Your task to perform on an android device: create a new album in the google photos Image 0: 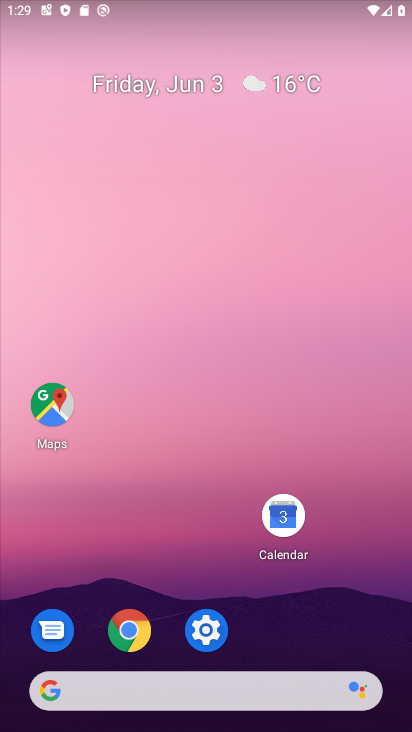
Step 0: drag from (297, 695) to (186, 134)
Your task to perform on an android device: create a new album in the google photos Image 1: 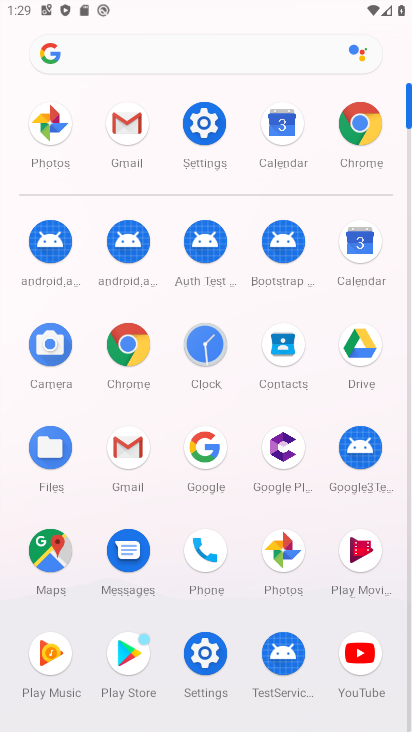
Step 1: click (283, 548)
Your task to perform on an android device: create a new album in the google photos Image 2: 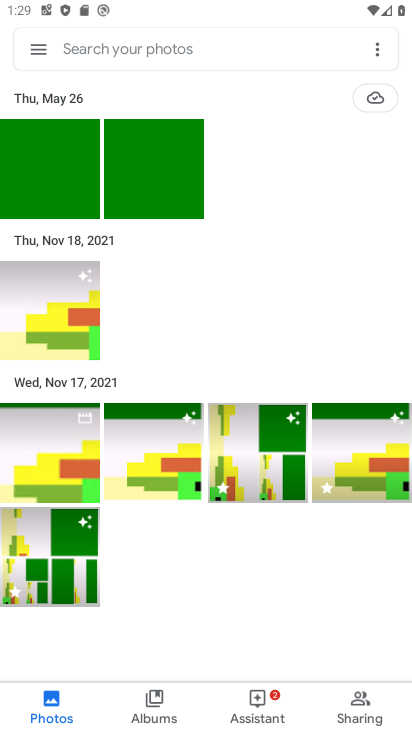
Step 2: click (74, 182)
Your task to perform on an android device: create a new album in the google photos Image 3: 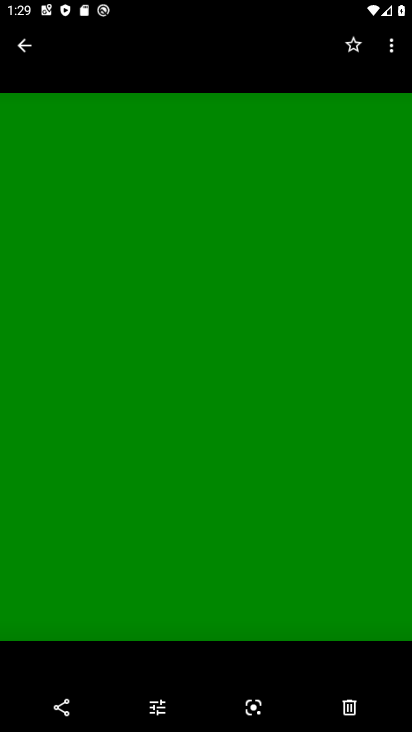
Step 3: click (389, 60)
Your task to perform on an android device: create a new album in the google photos Image 4: 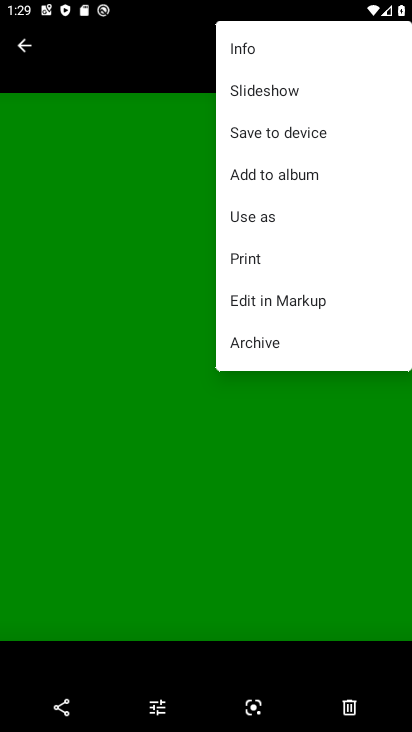
Step 4: click (266, 180)
Your task to perform on an android device: create a new album in the google photos Image 5: 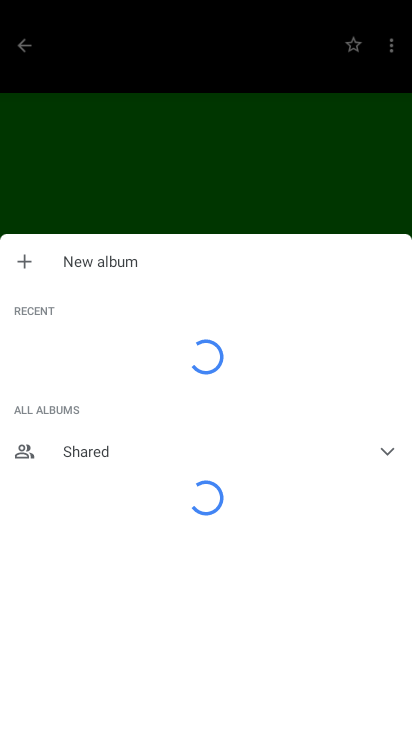
Step 5: click (39, 256)
Your task to perform on an android device: create a new album in the google photos Image 6: 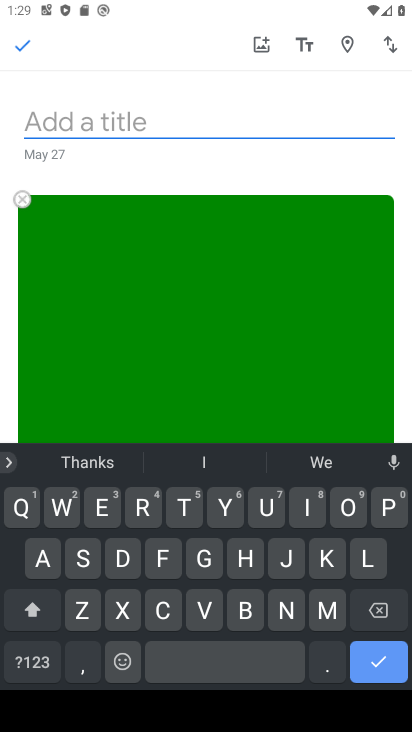
Step 6: click (155, 503)
Your task to perform on an android device: create a new album in the google photos Image 7: 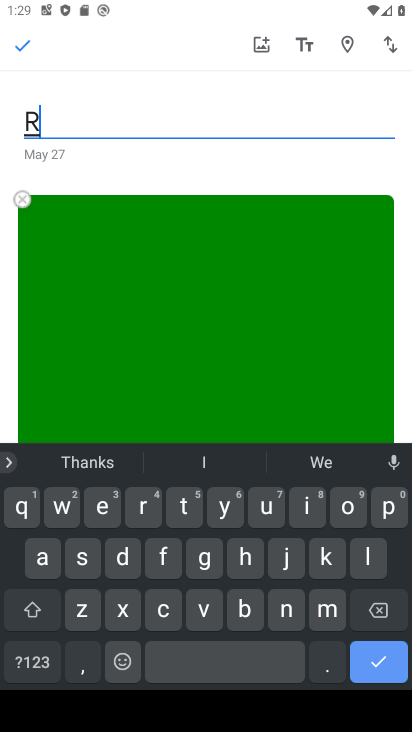
Step 7: click (169, 553)
Your task to perform on an android device: create a new album in the google photos Image 8: 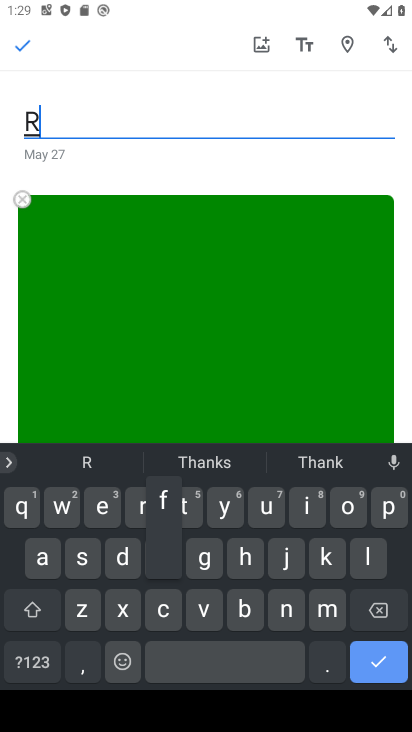
Step 8: click (250, 551)
Your task to perform on an android device: create a new album in the google photos Image 9: 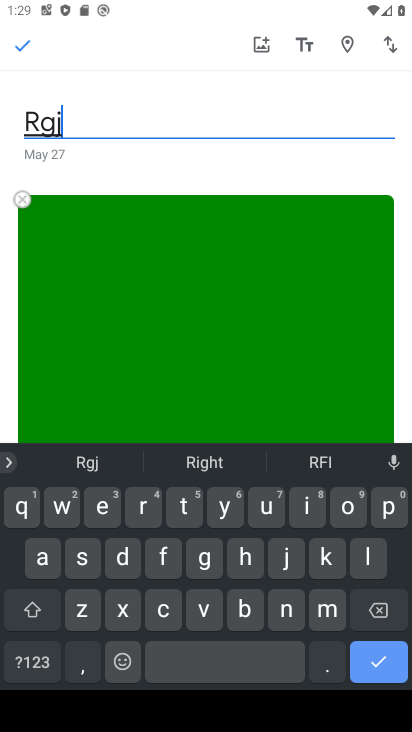
Step 9: click (20, 35)
Your task to perform on an android device: create a new album in the google photos Image 10: 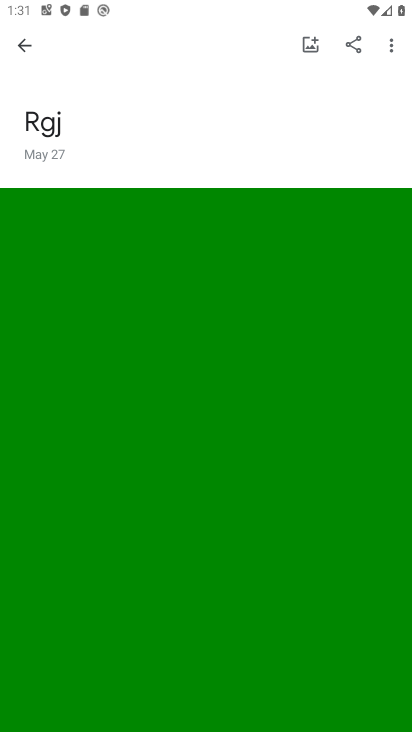
Step 10: task complete